Your task to perform on an android device: check battery use Image 0: 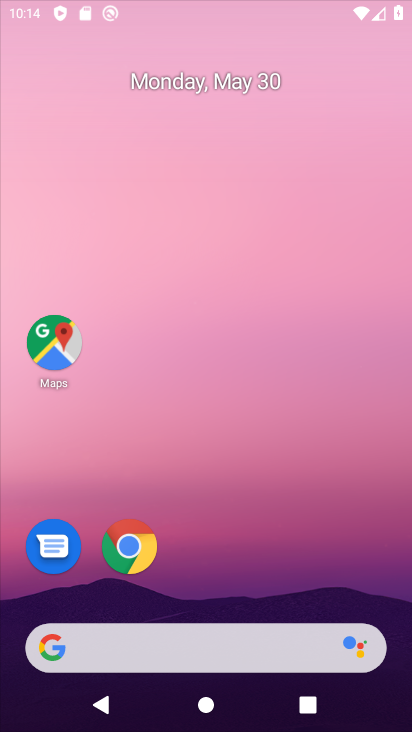
Step 0: press home button
Your task to perform on an android device: check battery use Image 1: 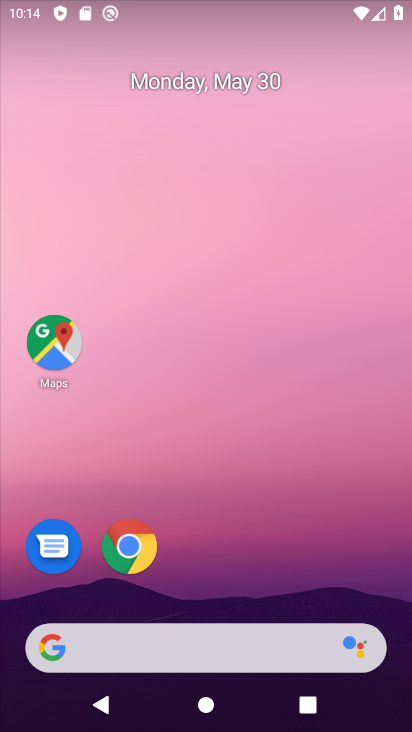
Step 1: drag from (223, 595) to (240, 83)
Your task to perform on an android device: check battery use Image 2: 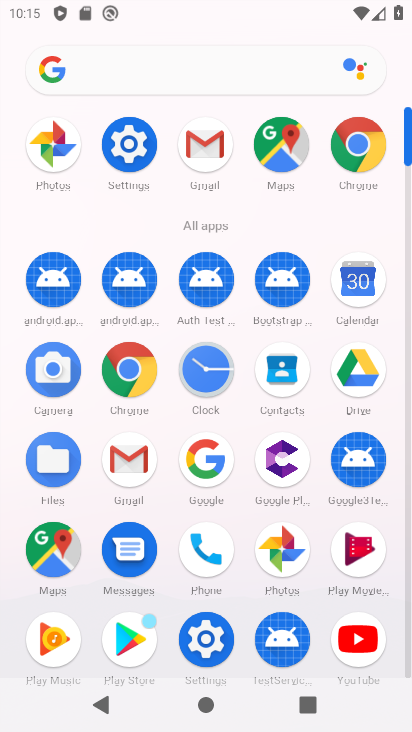
Step 2: click (121, 140)
Your task to perform on an android device: check battery use Image 3: 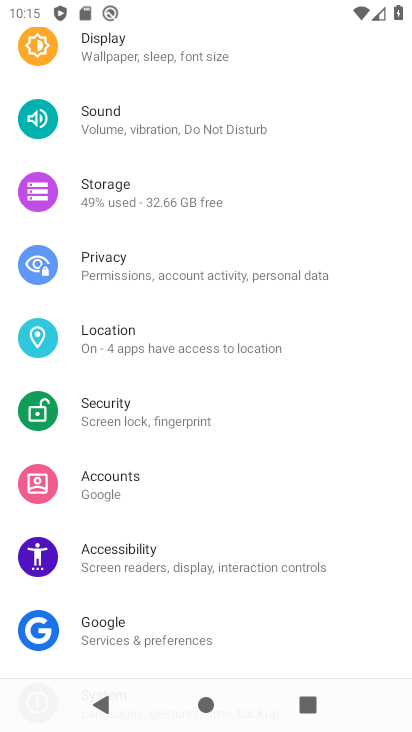
Step 3: drag from (161, 112) to (136, 577)
Your task to perform on an android device: check battery use Image 4: 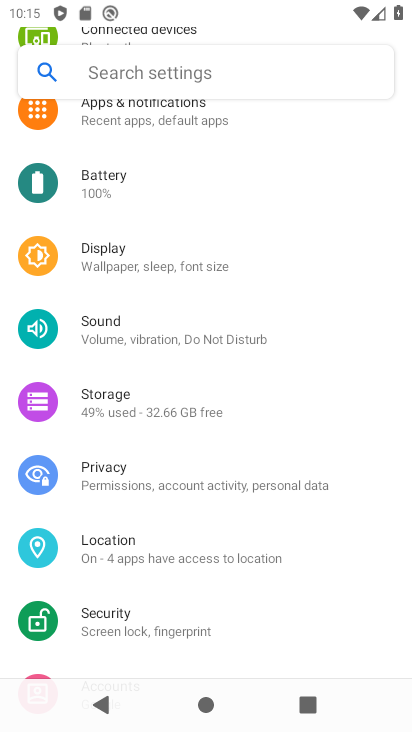
Step 4: click (128, 181)
Your task to perform on an android device: check battery use Image 5: 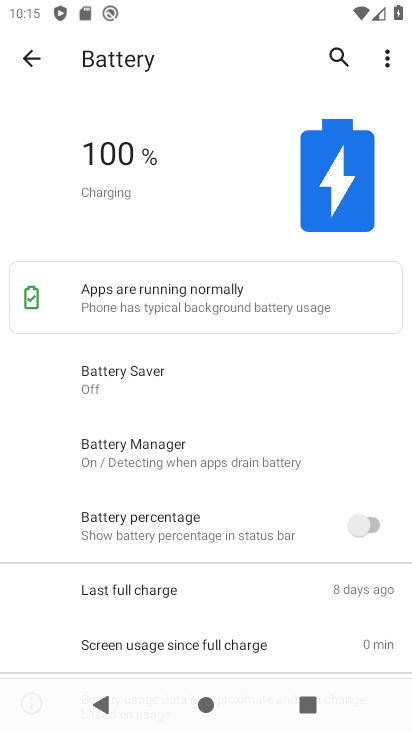
Step 5: drag from (180, 608) to (226, 264)
Your task to perform on an android device: check battery use Image 6: 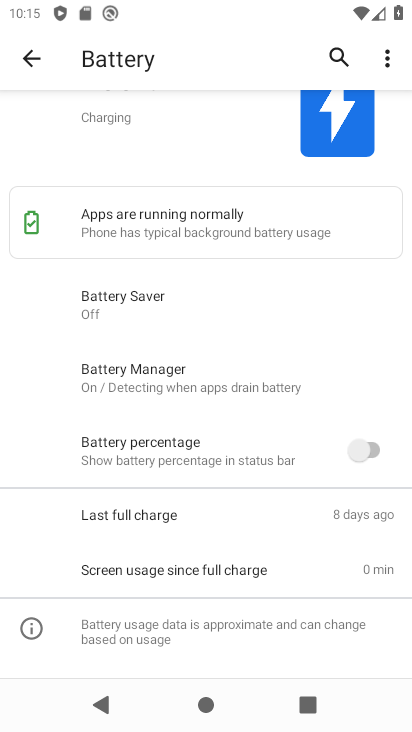
Step 6: click (384, 49)
Your task to perform on an android device: check battery use Image 7: 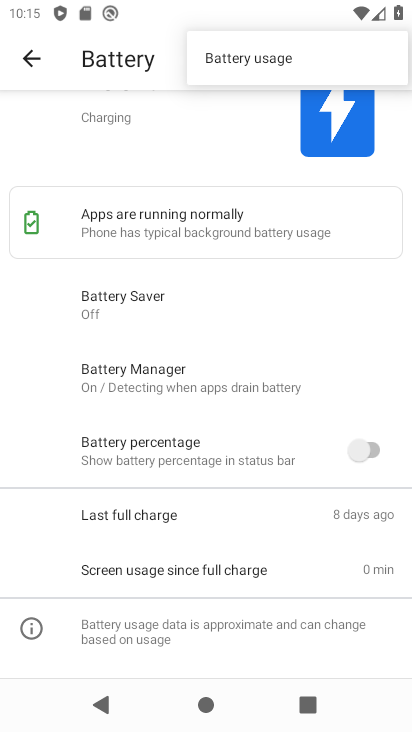
Step 7: click (245, 59)
Your task to perform on an android device: check battery use Image 8: 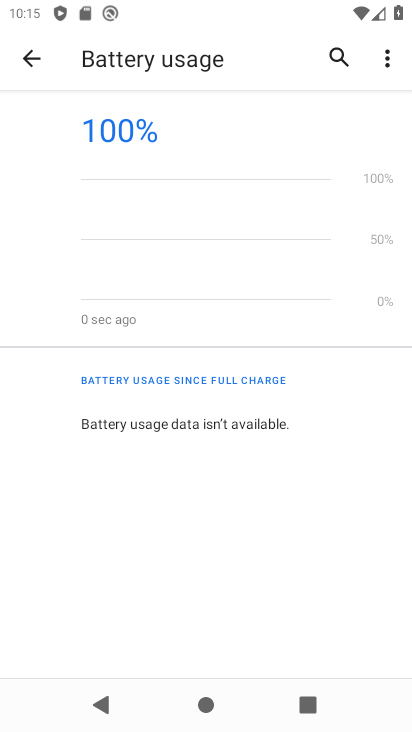
Step 8: task complete